Your task to perform on an android device: Open accessibility settings Image 0: 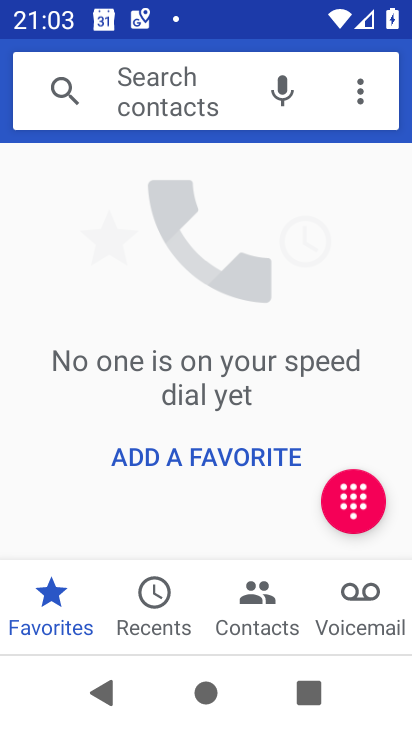
Step 0: drag from (208, 538) to (253, 240)
Your task to perform on an android device: Open accessibility settings Image 1: 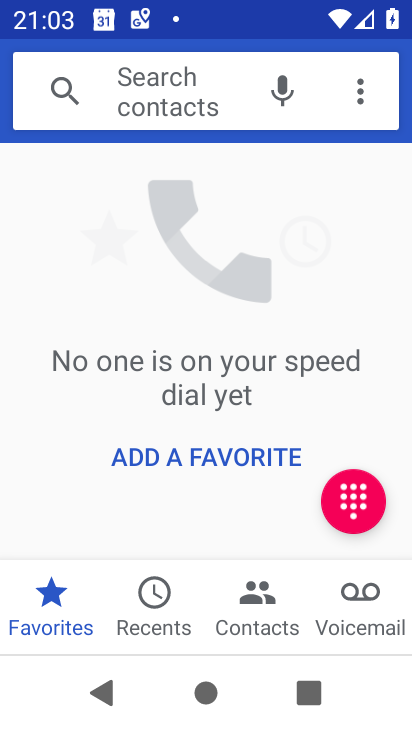
Step 1: press home button
Your task to perform on an android device: Open accessibility settings Image 2: 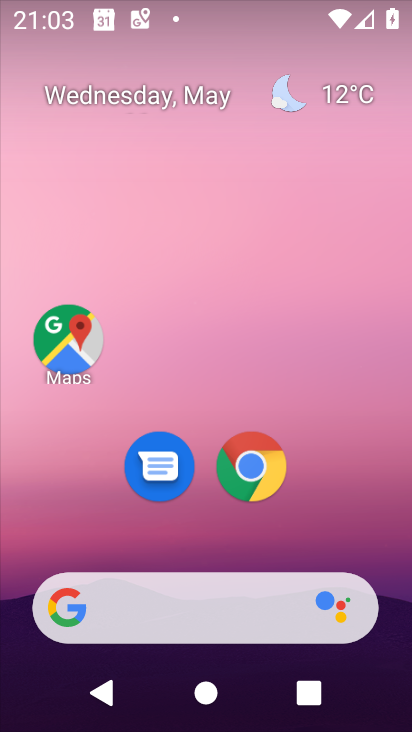
Step 2: drag from (213, 546) to (234, 24)
Your task to perform on an android device: Open accessibility settings Image 3: 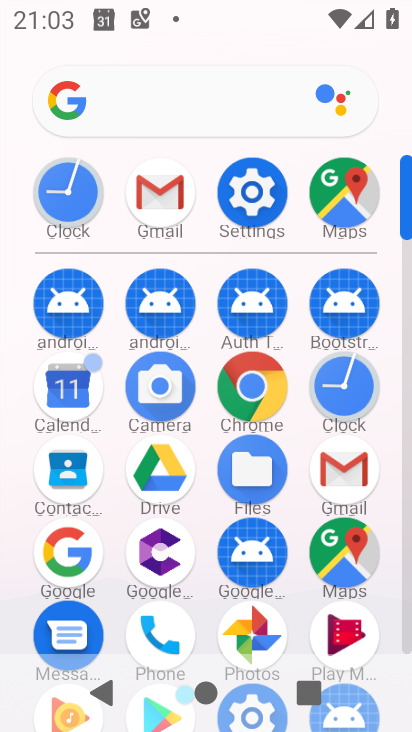
Step 3: click (248, 194)
Your task to perform on an android device: Open accessibility settings Image 4: 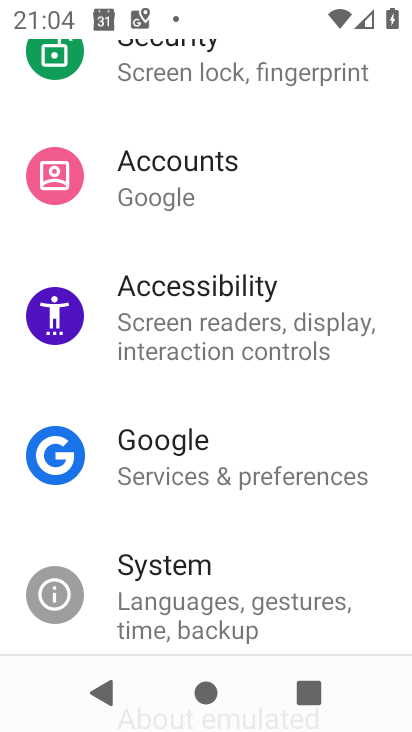
Step 4: click (219, 310)
Your task to perform on an android device: Open accessibility settings Image 5: 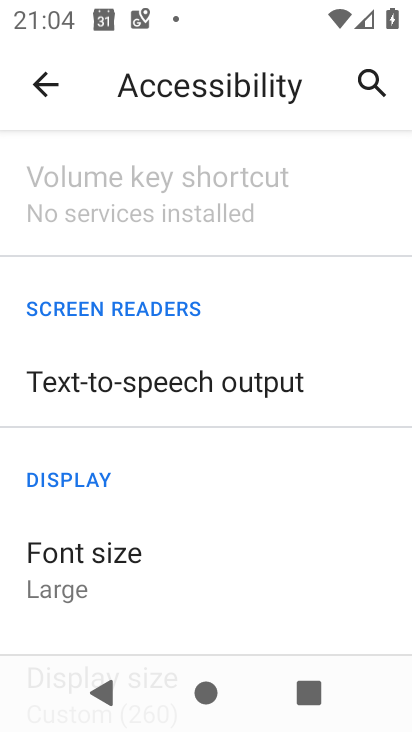
Step 5: task complete